Your task to perform on an android device: Open Youtube and go to "Your channel" Image 0: 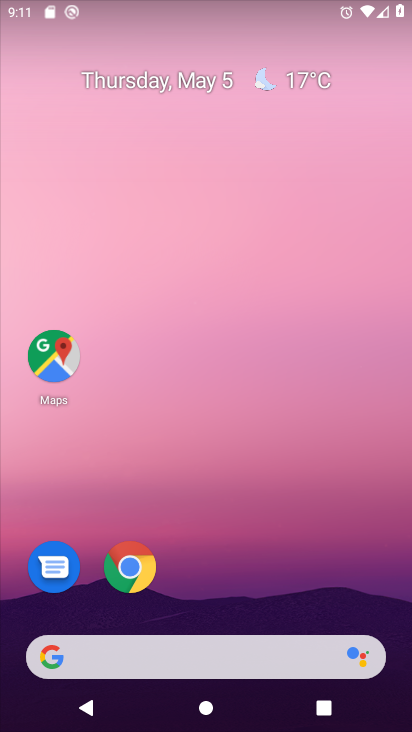
Step 0: drag from (246, 537) to (277, 24)
Your task to perform on an android device: Open Youtube and go to "Your channel" Image 1: 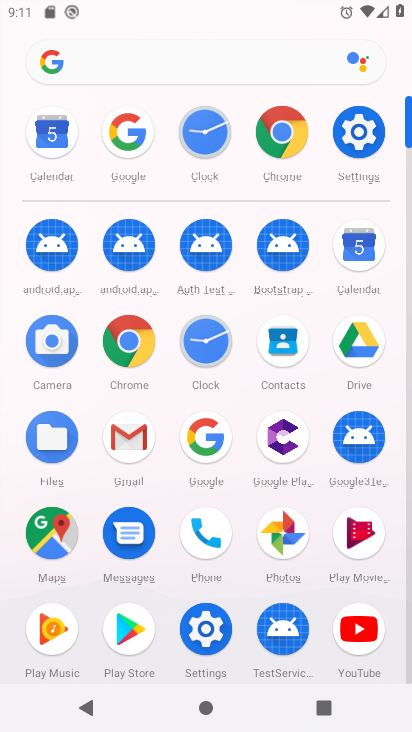
Step 1: click (365, 635)
Your task to perform on an android device: Open Youtube and go to "Your channel" Image 2: 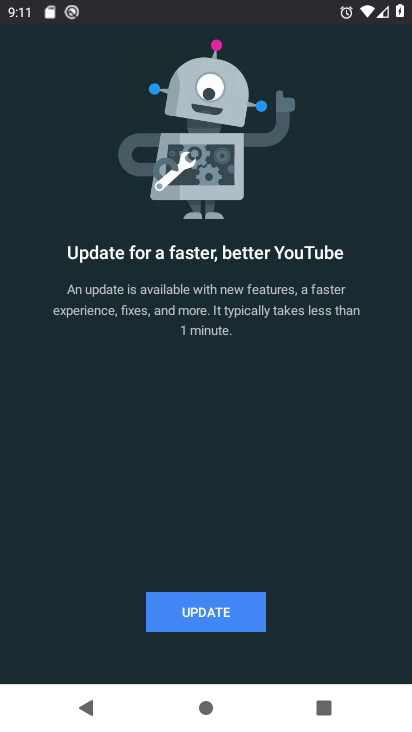
Step 2: click (238, 605)
Your task to perform on an android device: Open Youtube and go to "Your channel" Image 3: 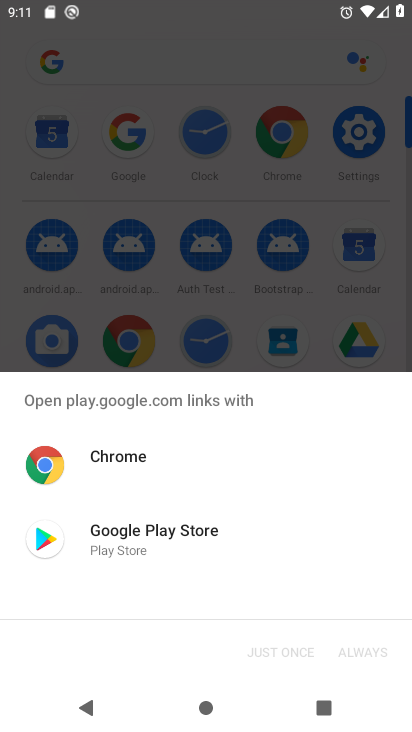
Step 3: click (198, 534)
Your task to perform on an android device: Open Youtube and go to "Your channel" Image 4: 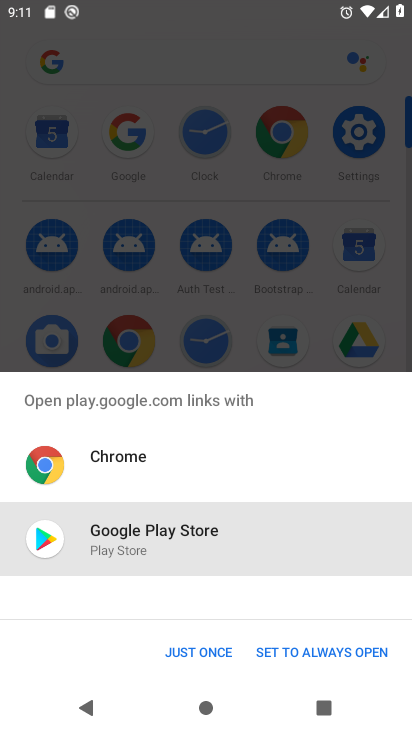
Step 4: click (204, 647)
Your task to perform on an android device: Open Youtube and go to "Your channel" Image 5: 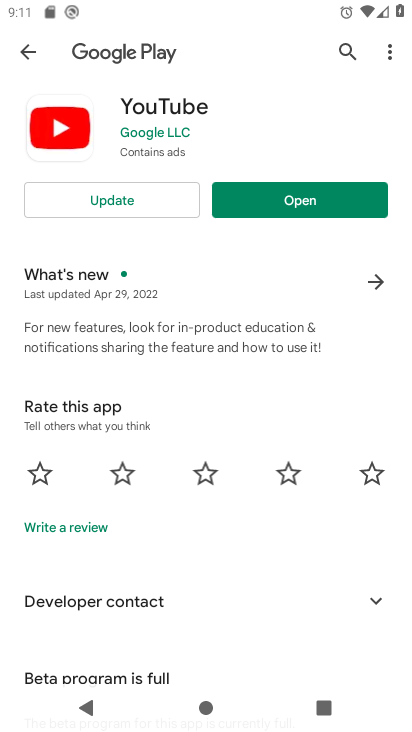
Step 5: click (175, 196)
Your task to perform on an android device: Open Youtube and go to "Your channel" Image 6: 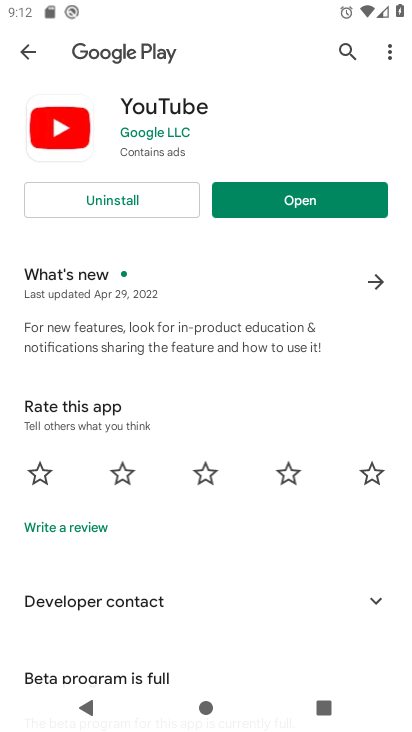
Step 6: click (231, 204)
Your task to perform on an android device: Open Youtube and go to "Your channel" Image 7: 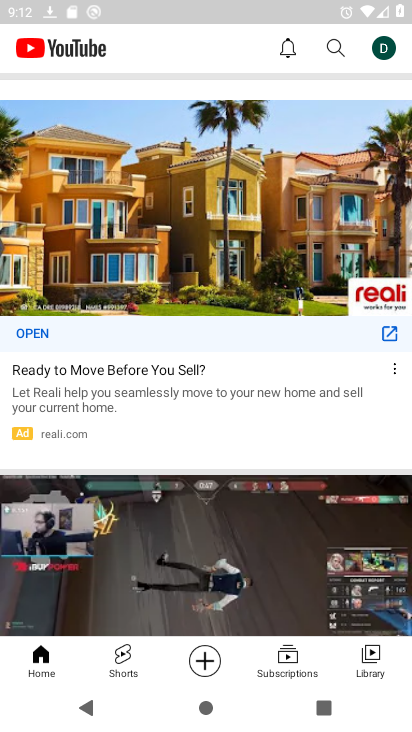
Step 7: click (385, 47)
Your task to perform on an android device: Open Youtube and go to "Your channel" Image 8: 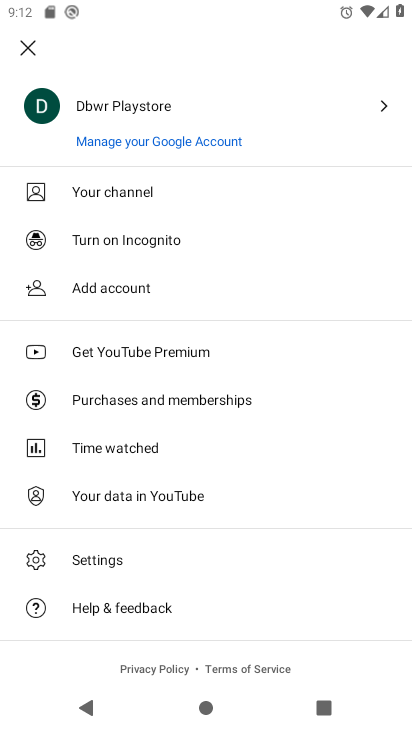
Step 8: click (242, 182)
Your task to perform on an android device: Open Youtube and go to "Your channel" Image 9: 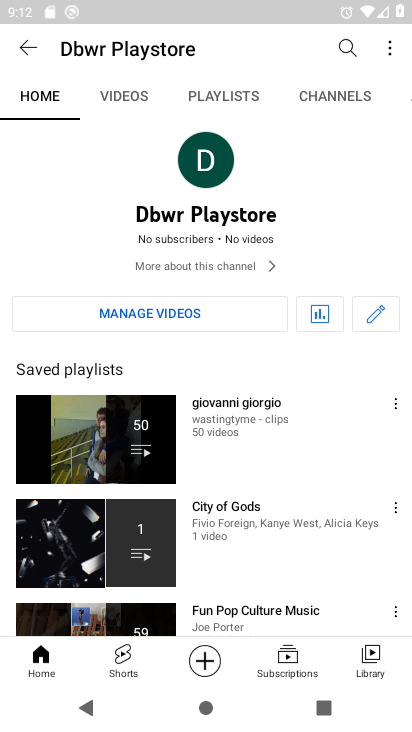
Step 9: task complete